Your task to perform on an android device: turn pop-ups off in chrome Image 0: 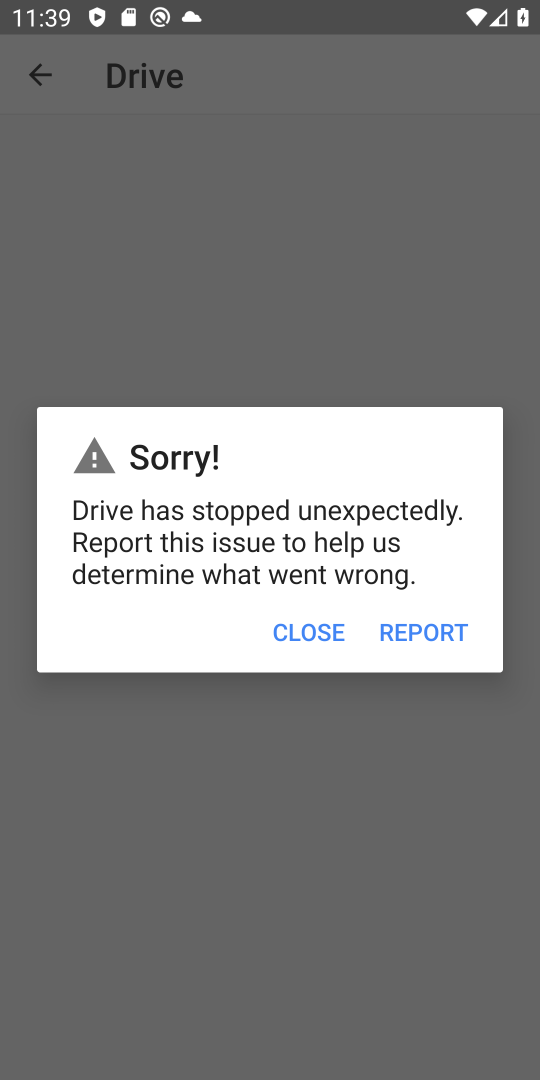
Step 0: press home button
Your task to perform on an android device: turn pop-ups off in chrome Image 1: 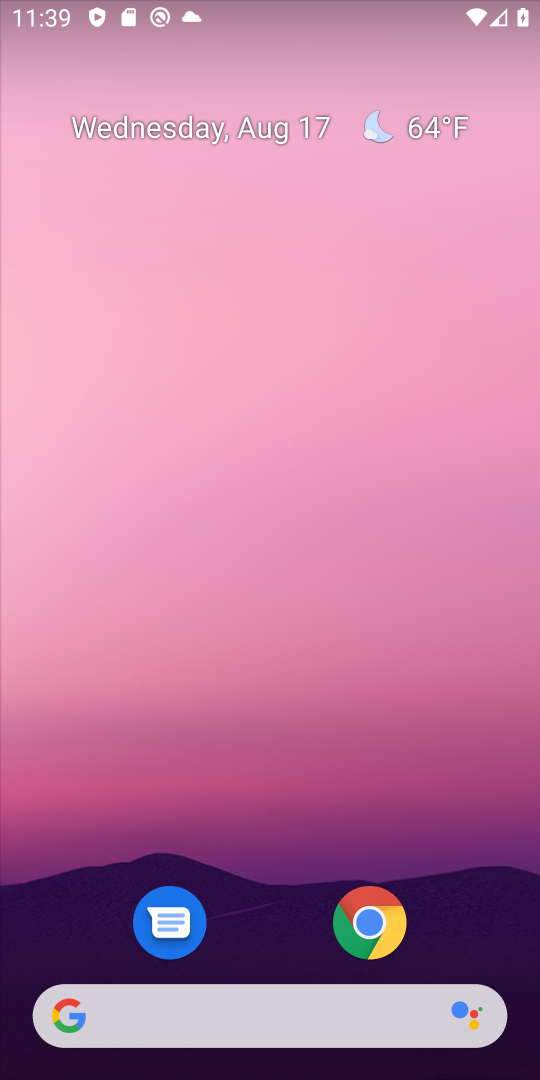
Step 1: click (373, 919)
Your task to perform on an android device: turn pop-ups off in chrome Image 2: 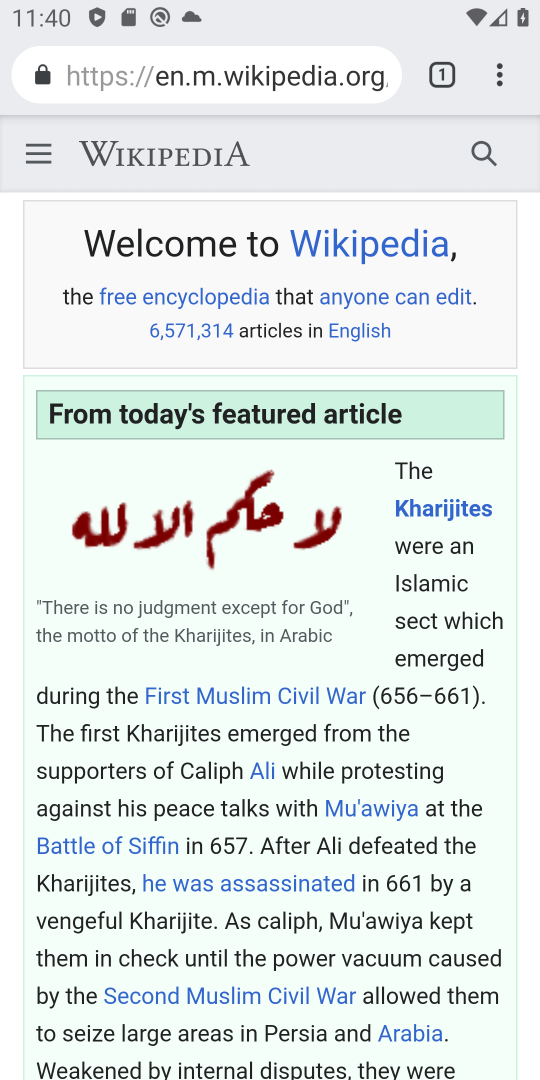
Step 2: click (491, 70)
Your task to perform on an android device: turn pop-ups off in chrome Image 3: 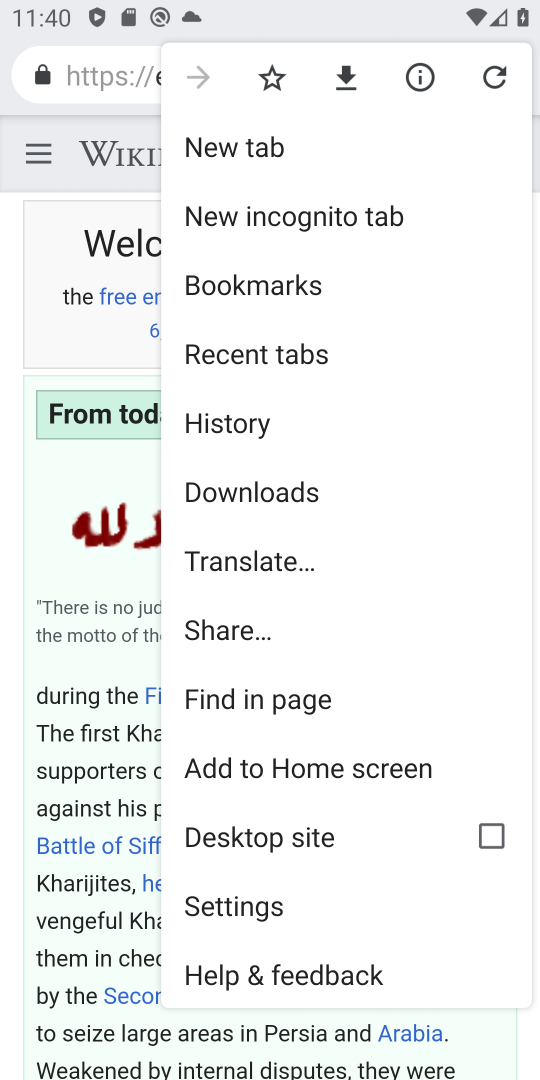
Step 3: click (252, 902)
Your task to perform on an android device: turn pop-ups off in chrome Image 4: 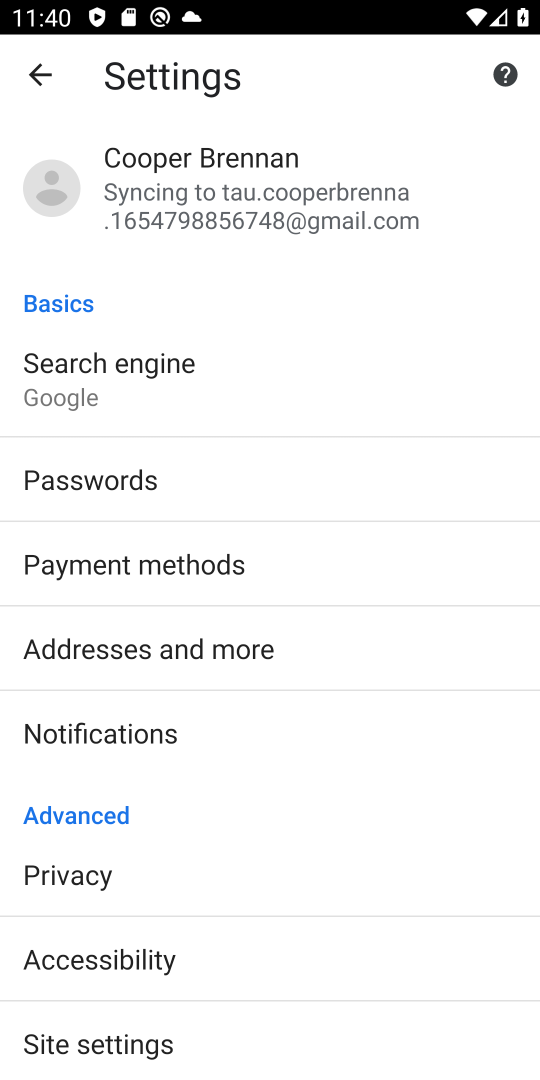
Step 4: click (121, 1037)
Your task to perform on an android device: turn pop-ups off in chrome Image 5: 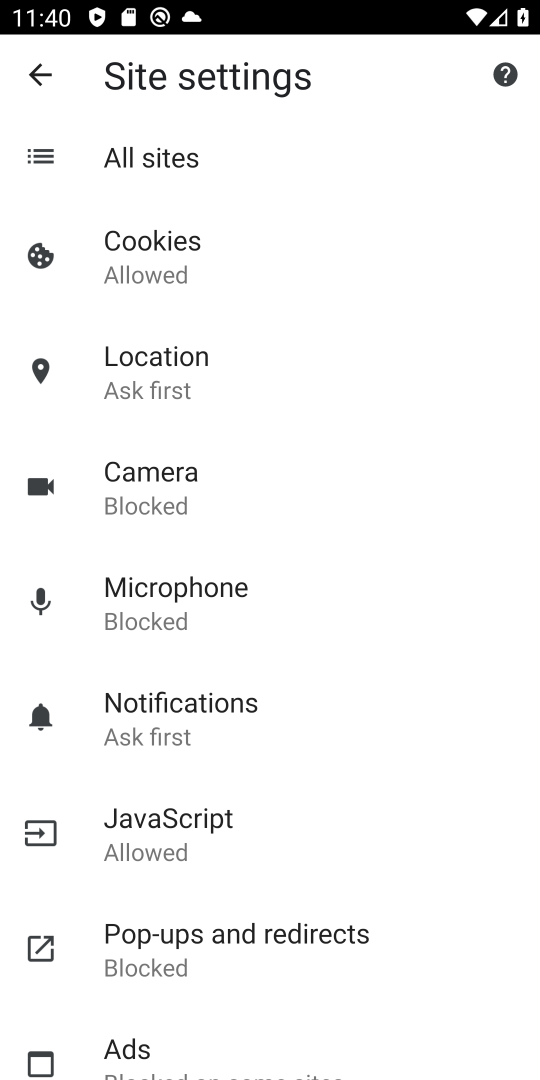
Step 5: click (185, 931)
Your task to perform on an android device: turn pop-ups off in chrome Image 6: 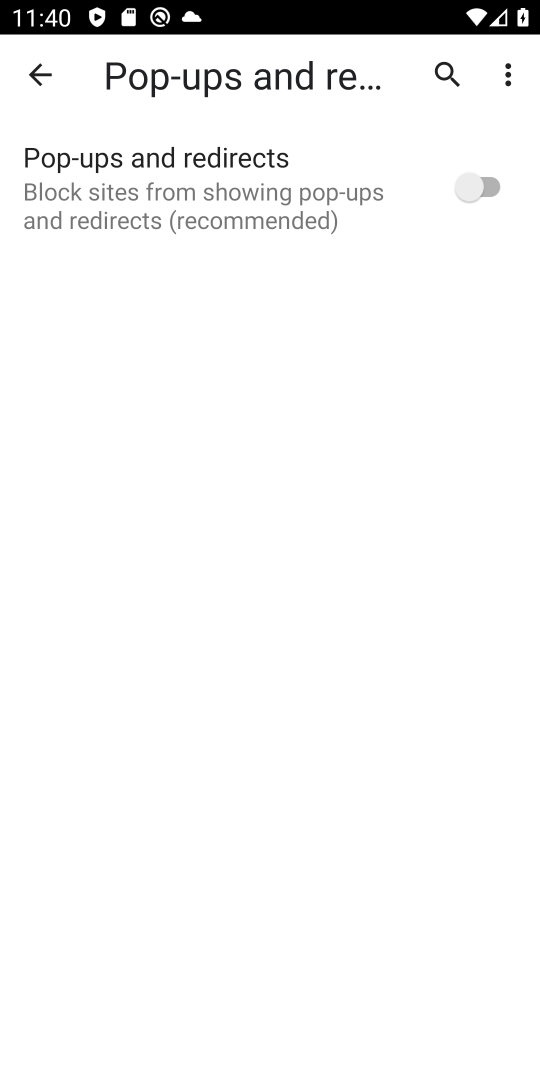
Step 6: task complete